Your task to perform on an android device: toggle translation in the chrome app Image 0: 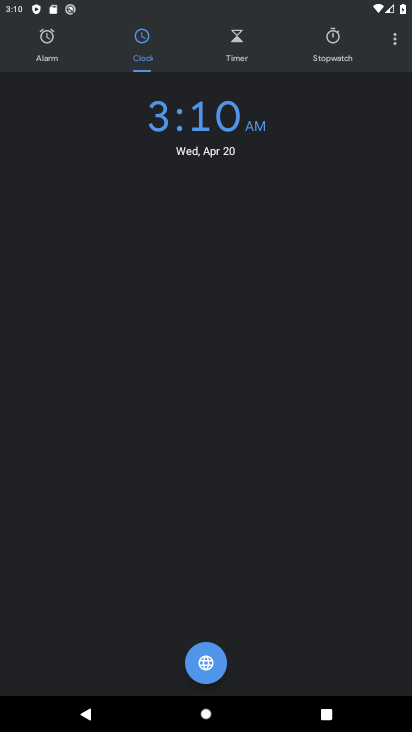
Step 0: press home button
Your task to perform on an android device: toggle translation in the chrome app Image 1: 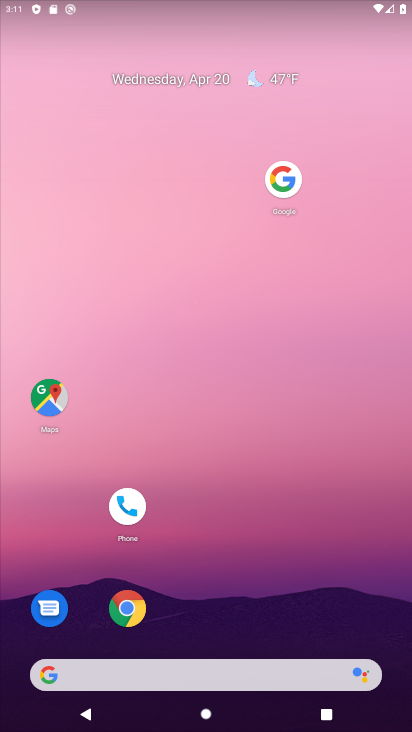
Step 1: drag from (301, 561) to (319, 186)
Your task to perform on an android device: toggle translation in the chrome app Image 2: 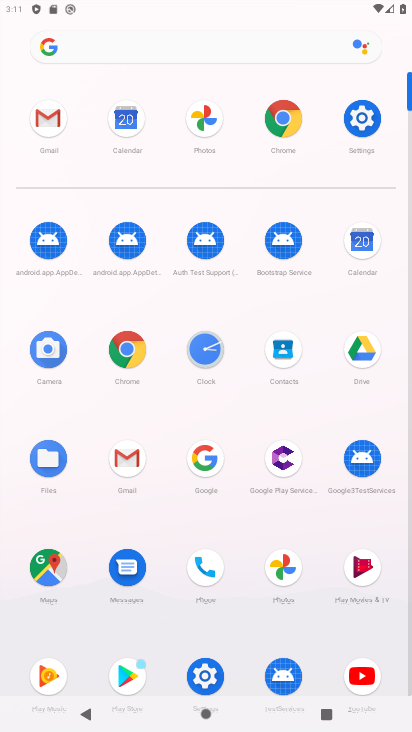
Step 2: click (288, 121)
Your task to perform on an android device: toggle translation in the chrome app Image 3: 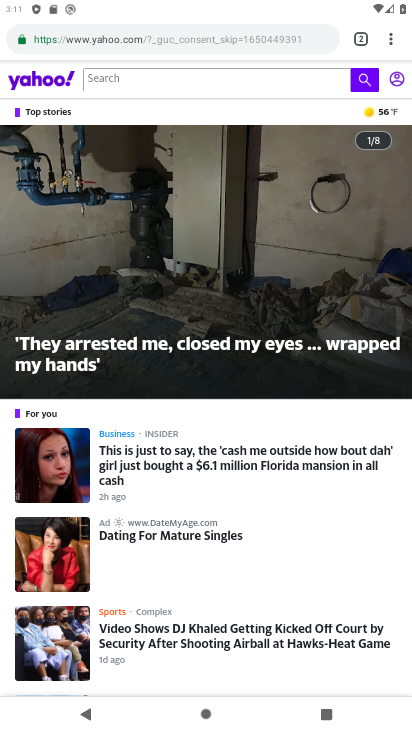
Step 3: click (390, 39)
Your task to perform on an android device: toggle translation in the chrome app Image 4: 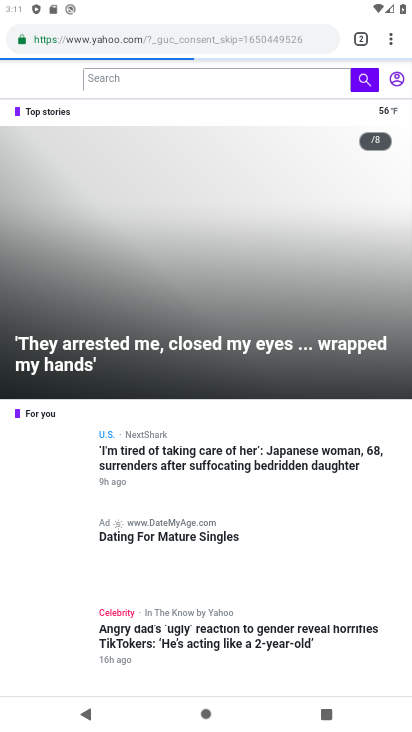
Step 4: drag from (391, 39) to (253, 511)
Your task to perform on an android device: toggle translation in the chrome app Image 5: 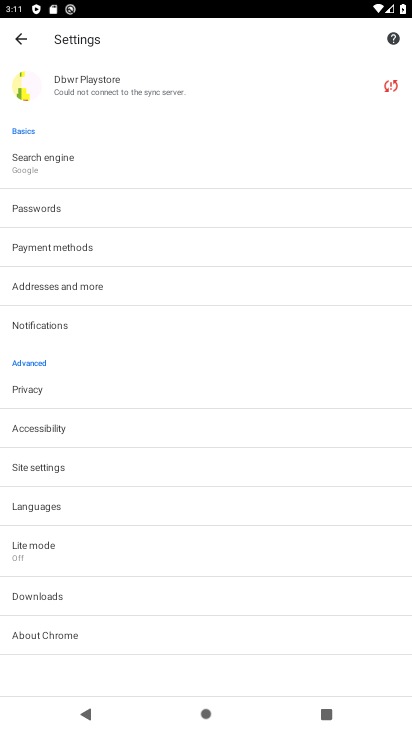
Step 5: click (35, 512)
Your task to perform on an android device: toggle translation in the chrome app Image 6: 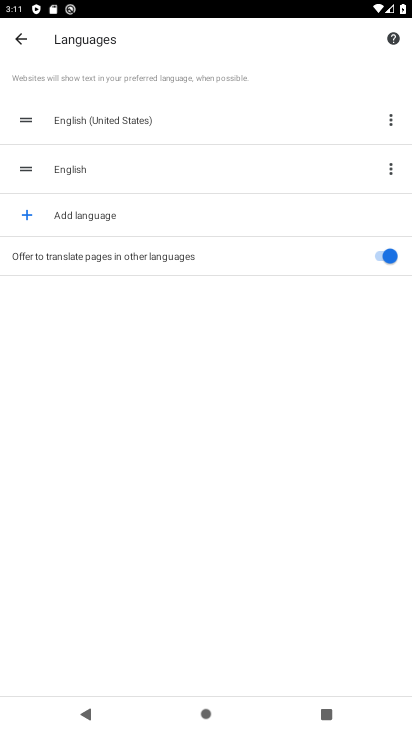
Step 6: click (366, 256)
Your task to perform on an android device: toggle translation in the chrome app Image 7: 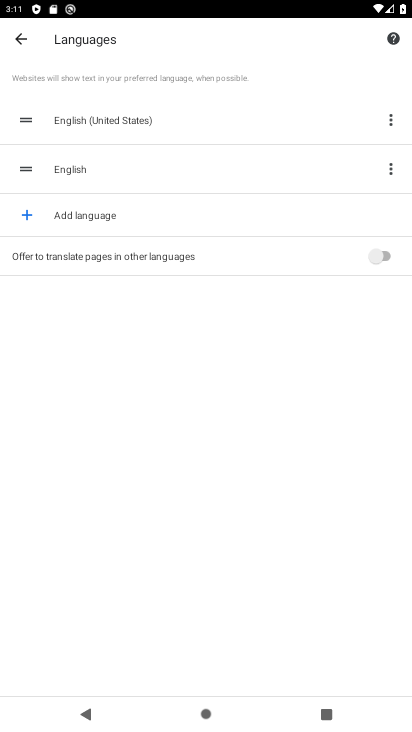
Step 7: task complete